Your task to perform on an android device: read, delete, or share a saved page in the chrome app Image 0: 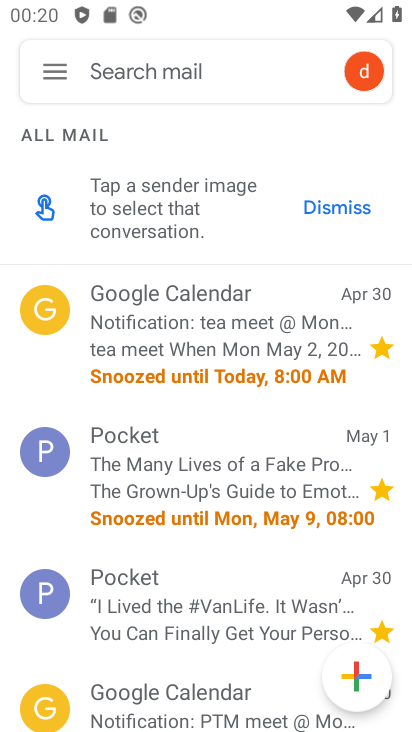
Step 0: press home button
Your task to perform on an android device: read, delete, or share a saved page in the chrome app Image 1: 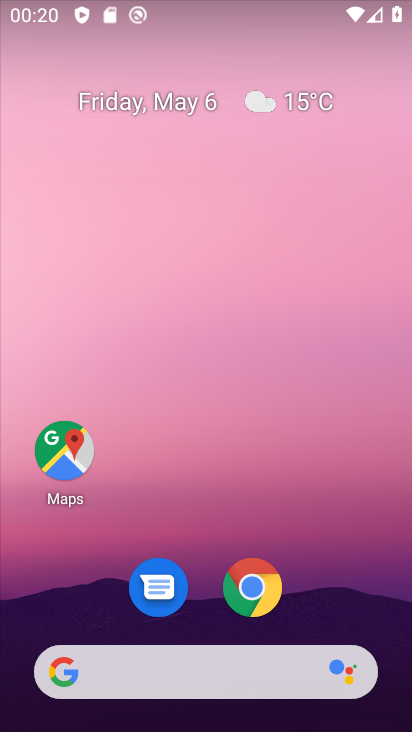
Step 1: click (236, 584)
Your task to perform on an android device: read, delete, or share a saved page in the chrome app Image 2: 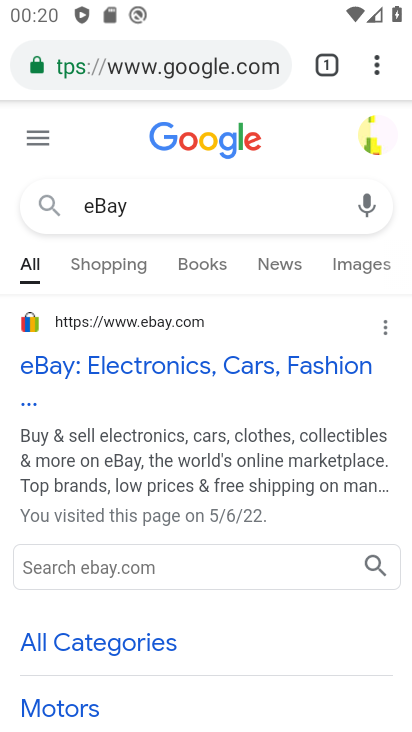
Step 2: click (374, 62)
Your task to perform on an android device: read, delete, or share a saved page in the chrome app Image 3: 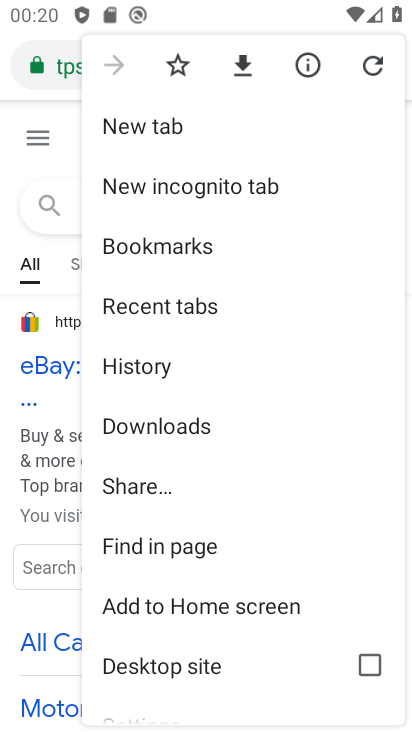
Step 3: click (142, 428)
Your task to perform on an android device: read, delete, or share a saved page in the chrome app Image 4: 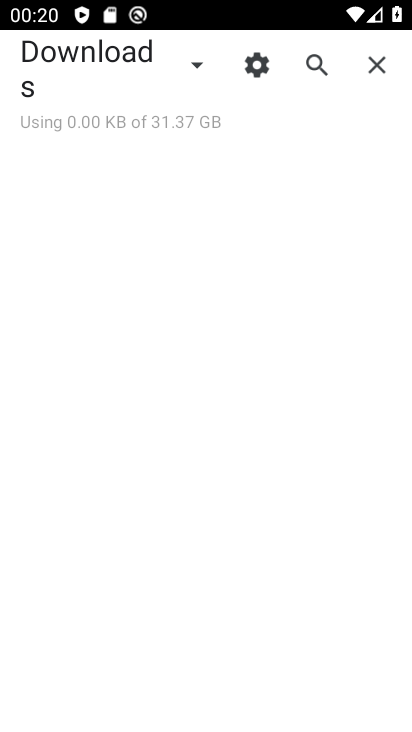
Step 4: task complete